Your task to perform on an android device: uninstall "eBay: The shopping marketplace" Image 0: 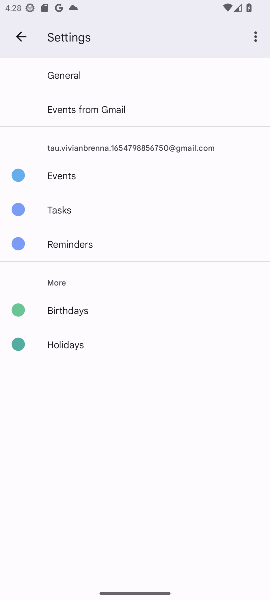
Step 0: press home button
Your task to perform on an android device: uninstall "eBay: The shopping marketplace" Image 1: 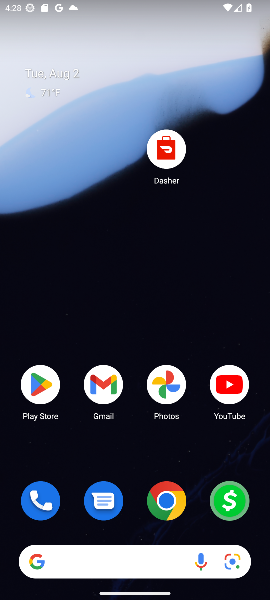
Step 1: click (35, 382)
Your task to perform on an android device: uninstall "eBay: The shopping marketplace" Image 2: 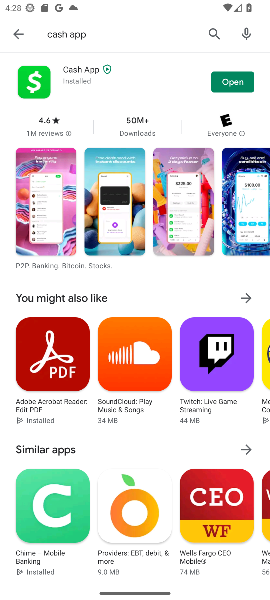
Step 2: click (216, 33)
Your task to perform on an android device: uninstall "eBay: The shopping marketplace" Image 3: 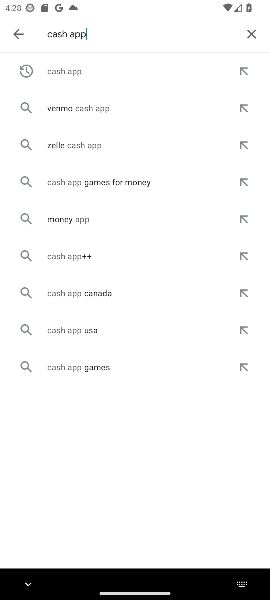
Step 3: click (247, 37)
Your task to perform on an android device: uninstall "eBay: The shopping marketplace" Image 4: 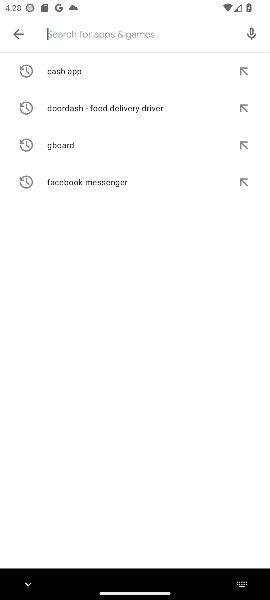
Step 4: type "eBay: The shopping marketplace"
Your task to perform on an android device: uninstall "eBay: The shopping marketplace" Image 5: 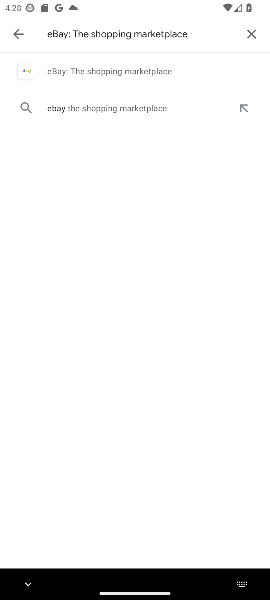
Step 5: click (84, 77)
Your task to perform on an android device: uninstall "eBay: The shopping marketplace" Image 6: 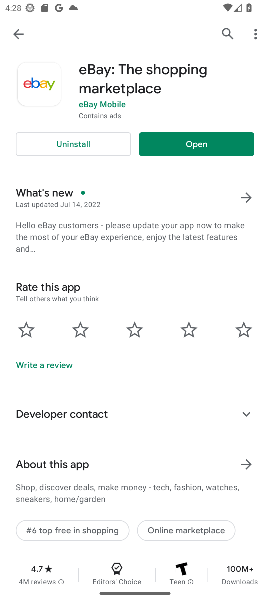
Step 6: click (71, 145)
Your task to perform on an android device: uninstall "eBay: The shopping marketplace" Image 7: 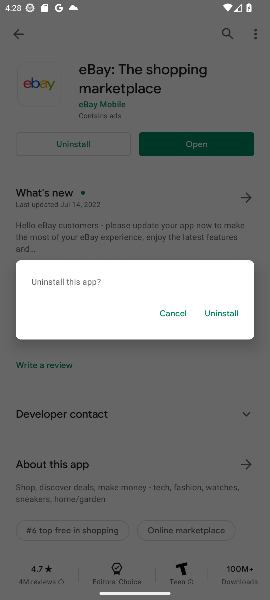
Step 7: click (208, 316)
Your task to perform on an android device: uninstall "eBay: The shopping marketplace" Image 8: 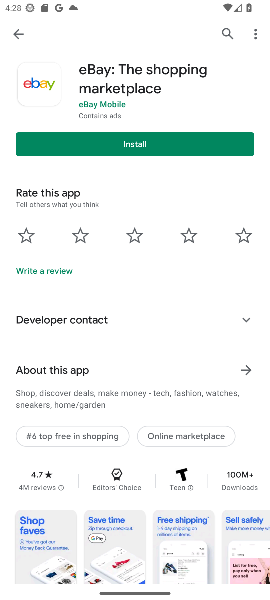
Step 8: task complete